Your task to perform on an android device: Open privacy settings Image 0: 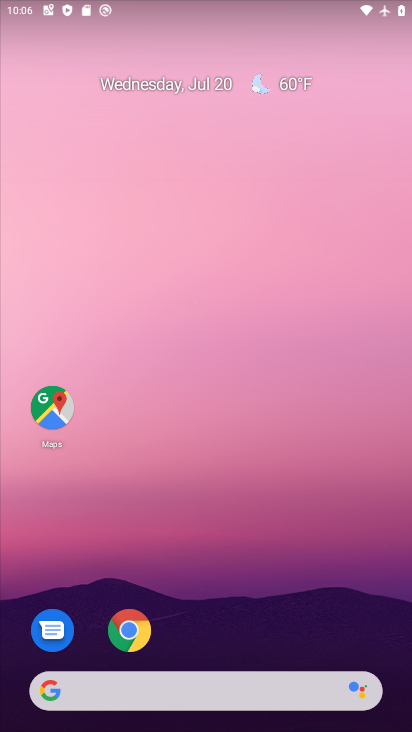
Step 0: drag from (213, 673) to (205, 365)
Your task to perform on an android device: Open privacy settings Image 1: 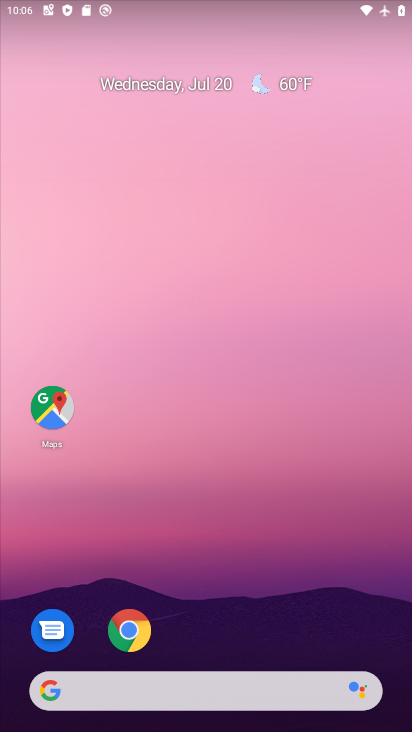
Step 1: drag from (200, 641) to (182, 83)
Your task to perform on an android device: Open privacy settings Image 2: 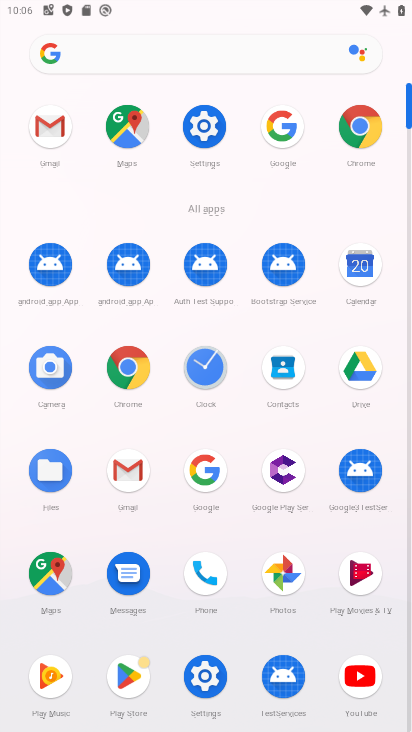
Step 2: click (198, 137)
Your task to perform on an android device: Open privacy settings Image 3: 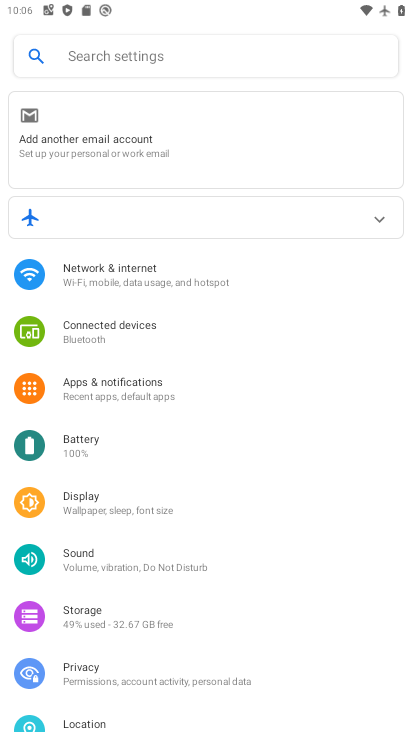
Step 3: click (87, 681)
Your task to perform on an android device: Open privacy settings Image 4: 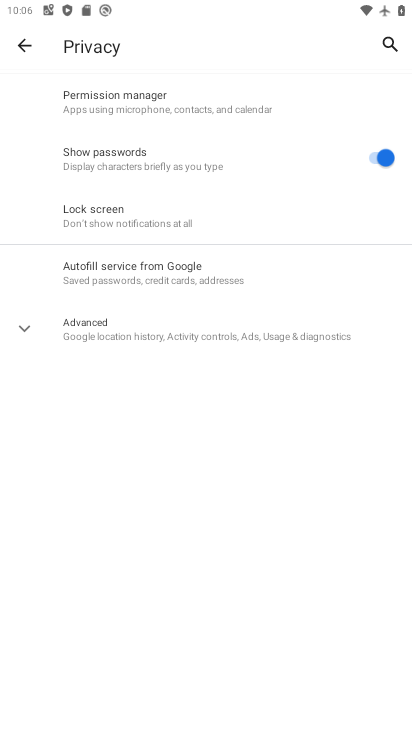
Step 4: click (85, 326)
Your task to perform on an android device: Open privacy settings Image 5: 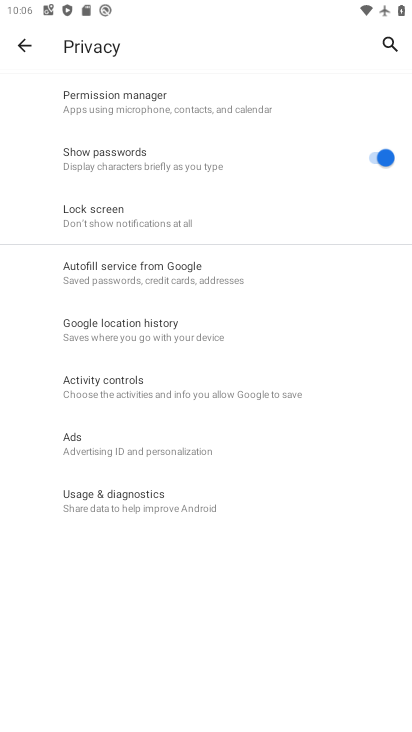
Step 5: task complete